Your task to perform on an android device: Search for seafood restaurants on Google Maps Image 0: 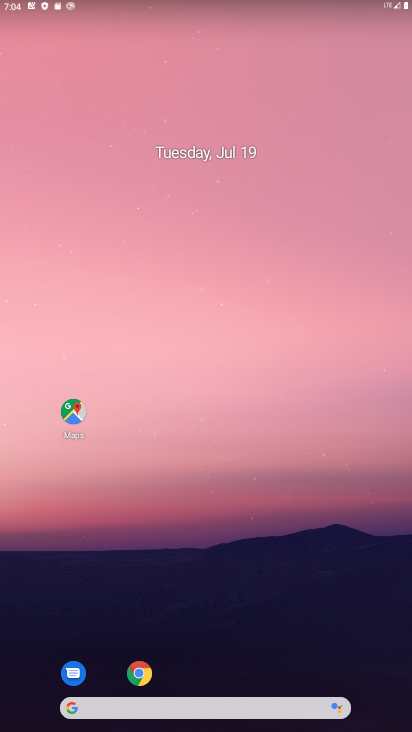
Step 0: drag from (372, 673) to (216, 36)
Your task to perform on an android device: Search for seafood restaurants on Google Maps Image 1: 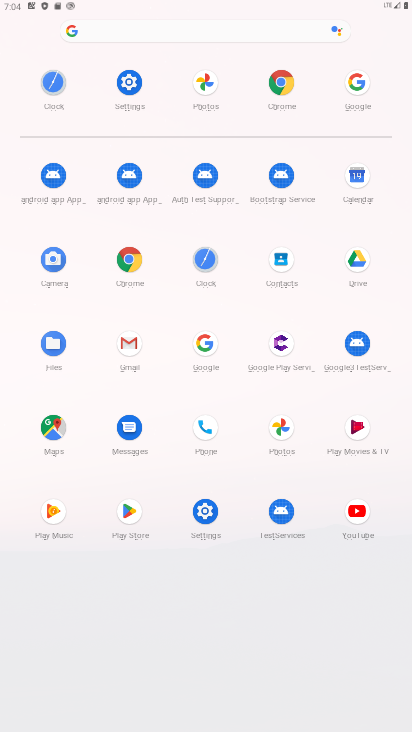
Step 1: click (57, 427)
Your task to perform on an android device: Search for seafood restaurants on Google Maps Image 2: 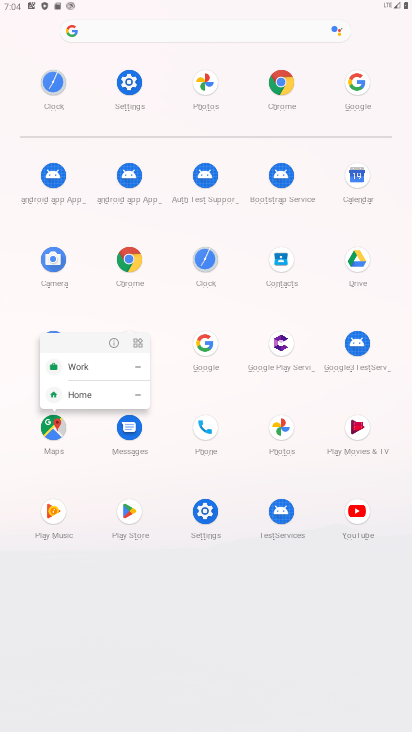
Step 2: click (57, 427)
Your task to perform on an android device: Search for seafood restaurants on Google Maps Image 3: 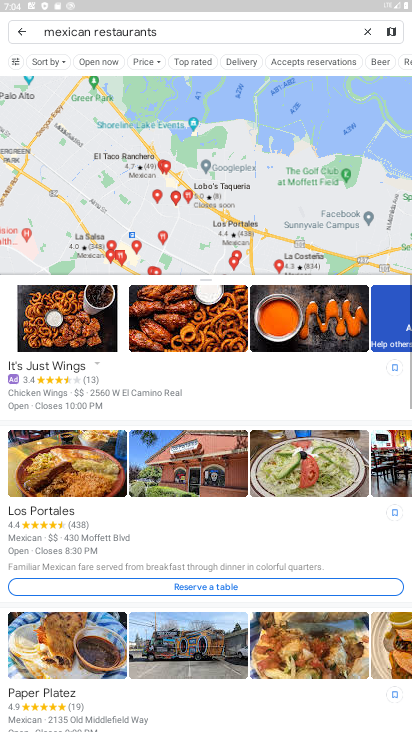
Step 3: click (359, 32)
Your task to perform on an android device: Search for seafood restaurants on Google Maps Image 4: 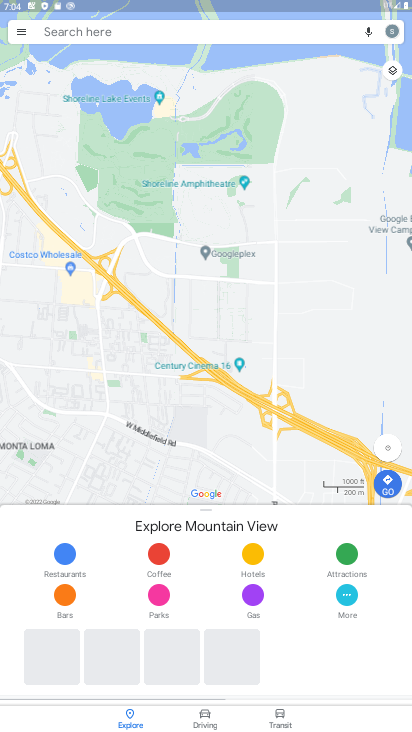
Step 4: click (65, 35)
Your task to perform on an android device: Search for seafood restaurants on Google Maps Image 5: 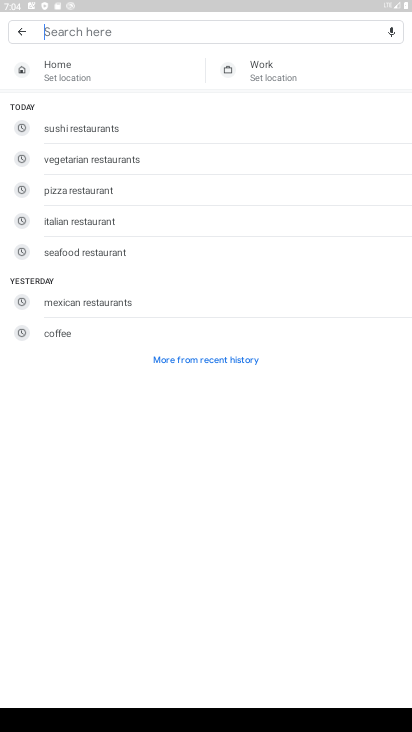
Step 5: click (63, 256)
Your task to perform on an android device: Search for seafood restaurants on Google Maps Image 6: 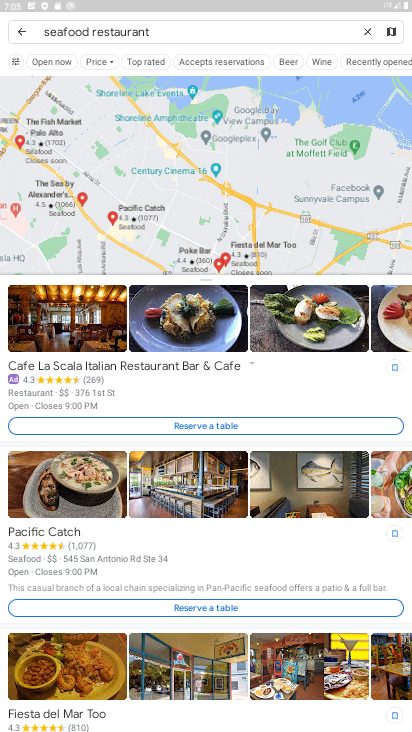
Step 6: task complete